Your task to perform on an android device: What's the weather going to be this weekend? Image 0: 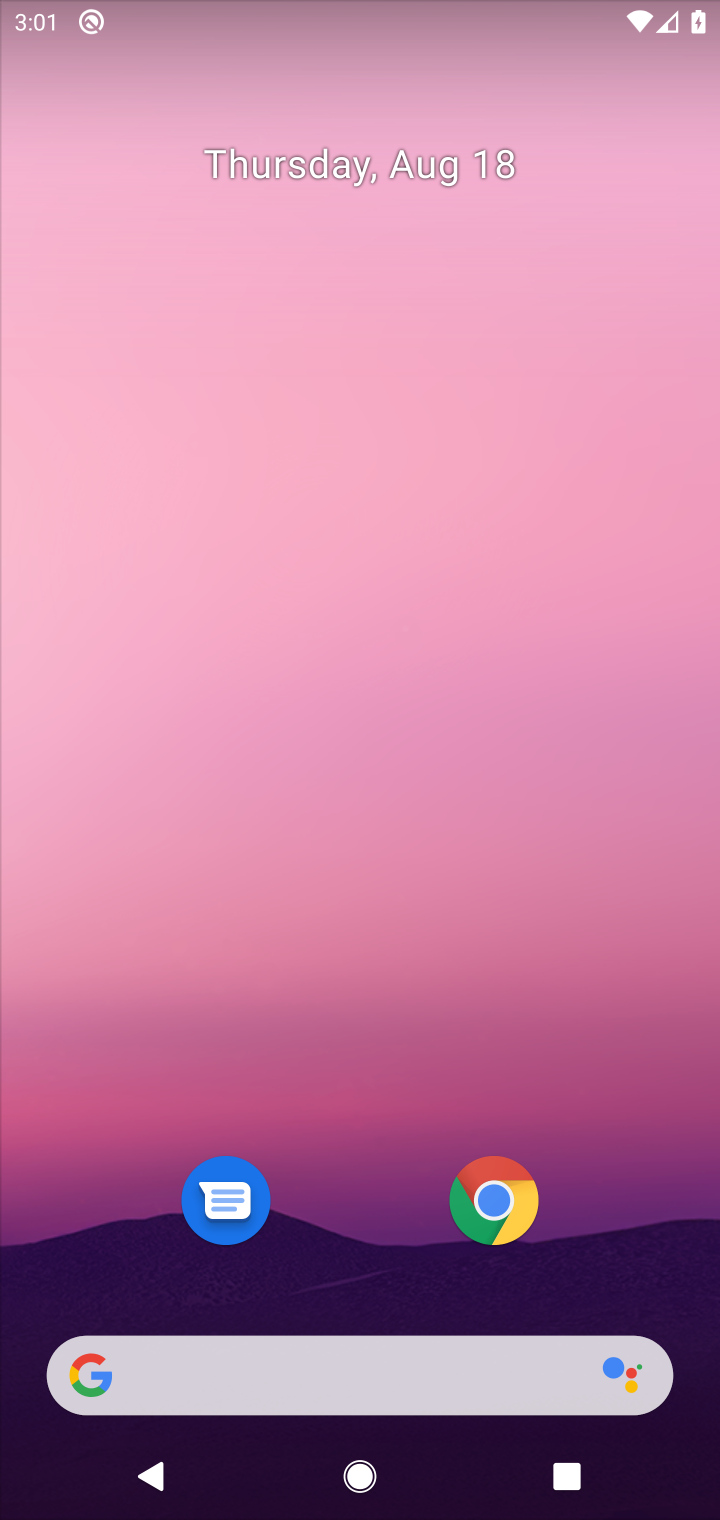
Step 0: drag from (405, 1208) to (533, 126)
Your task to perform on an android device: What's the weather going to be this weekend? Image 1: 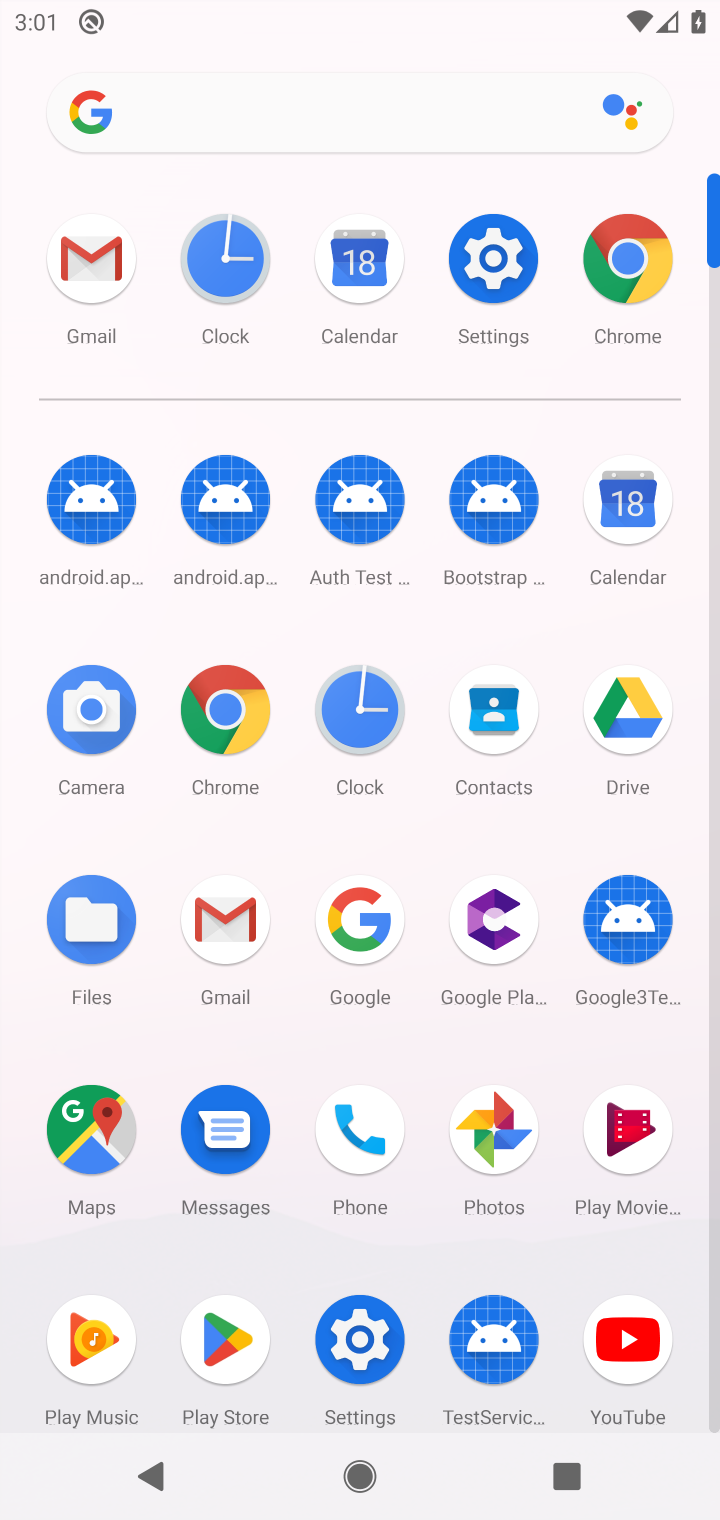
Step 1: click (213, 686)
Your task to perform on an android device: What's the weather going to be this weekend? Image 2: 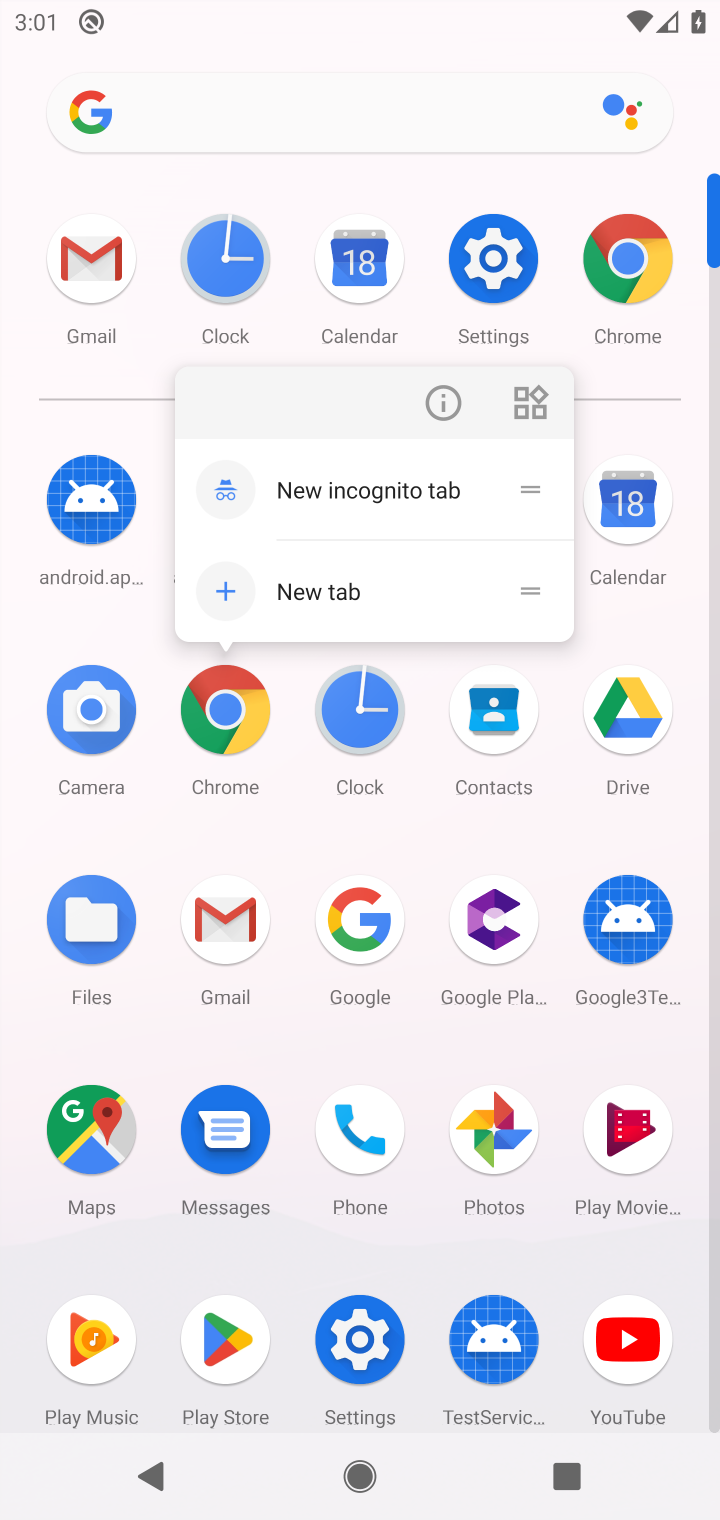
Step 2: click (251, 712)
Your task to perform on an android device: What's the weather going to be this weekend? Image 3: 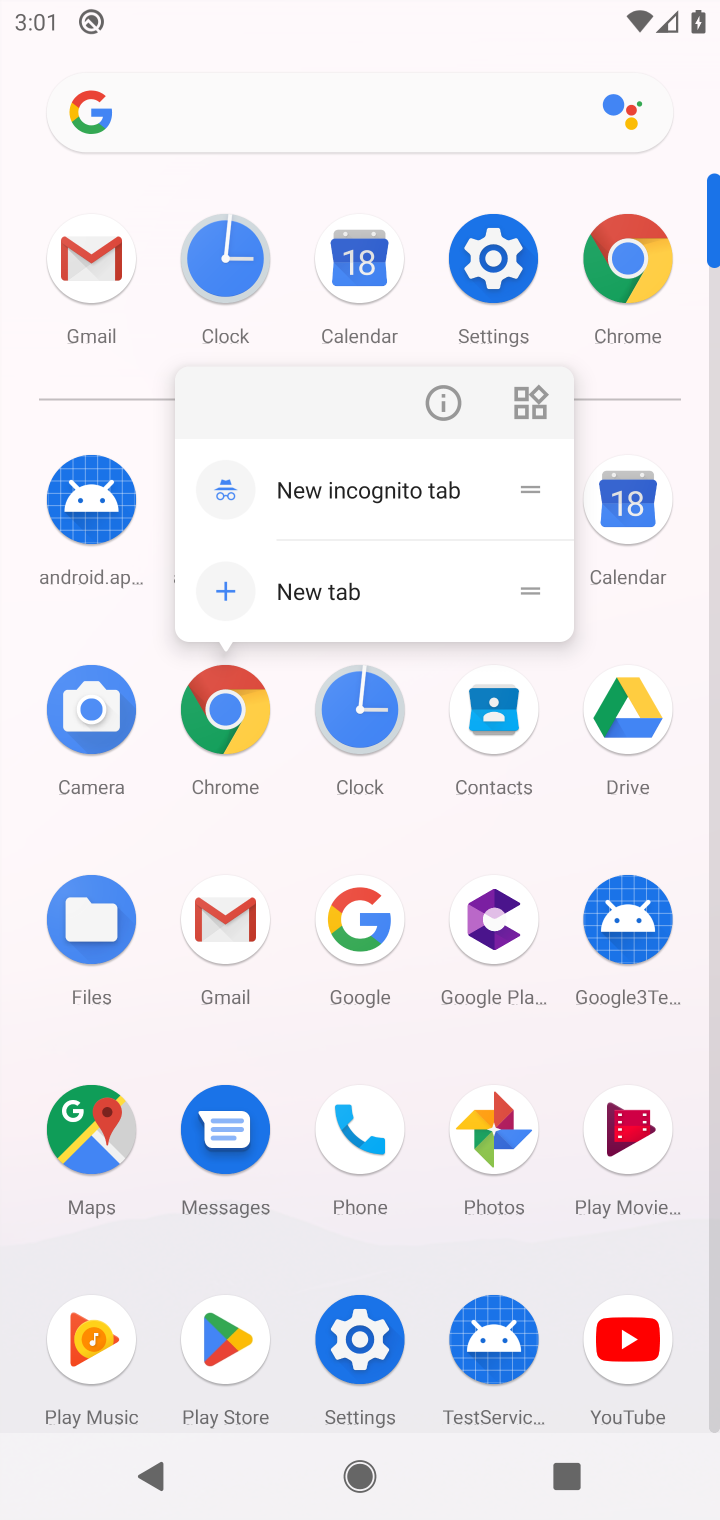
Step 3: click (251, 712)
Your task to perform on an android device: What's the weather going to be this weekend? Image 4: 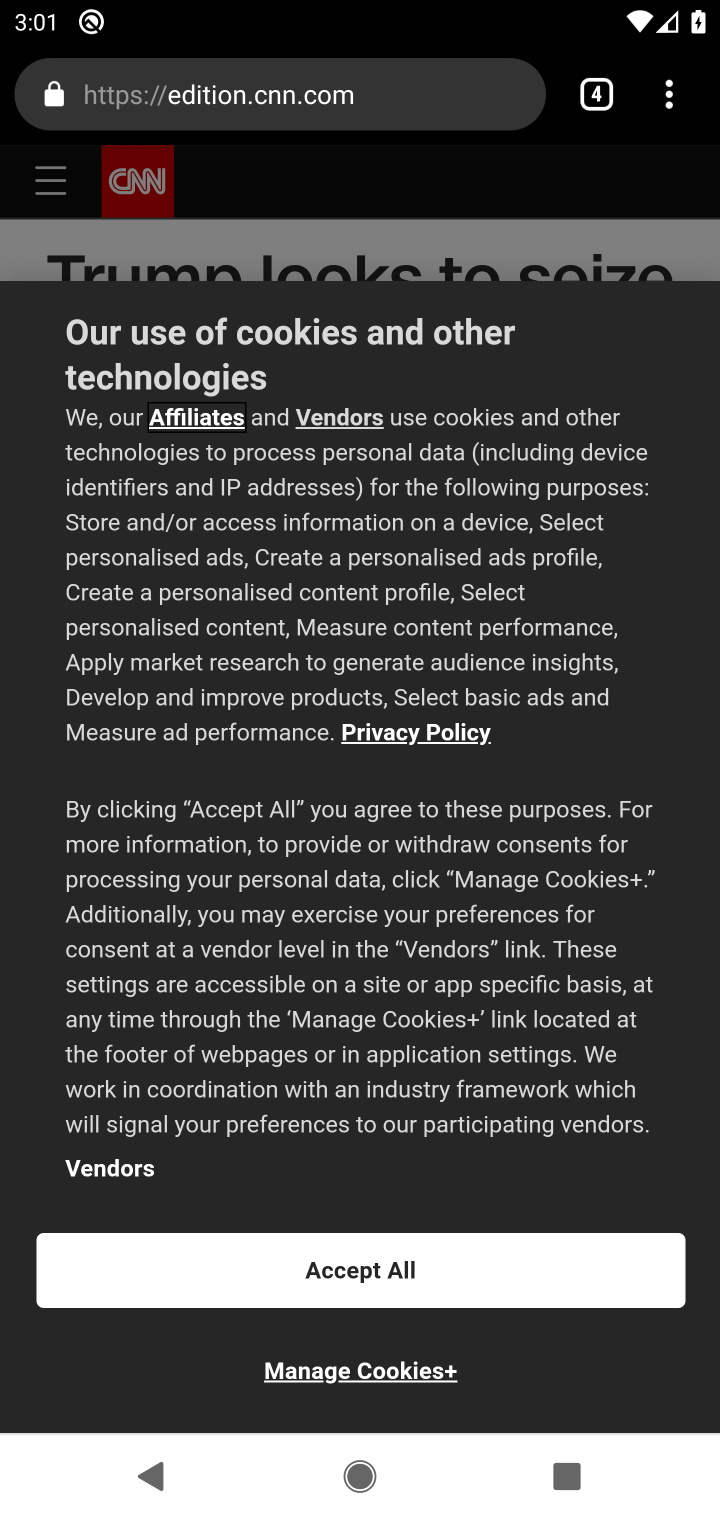
Step 4: click (294, 77)
Your task to perform on an android device: What's the weather going to be this weekend? Image 5: 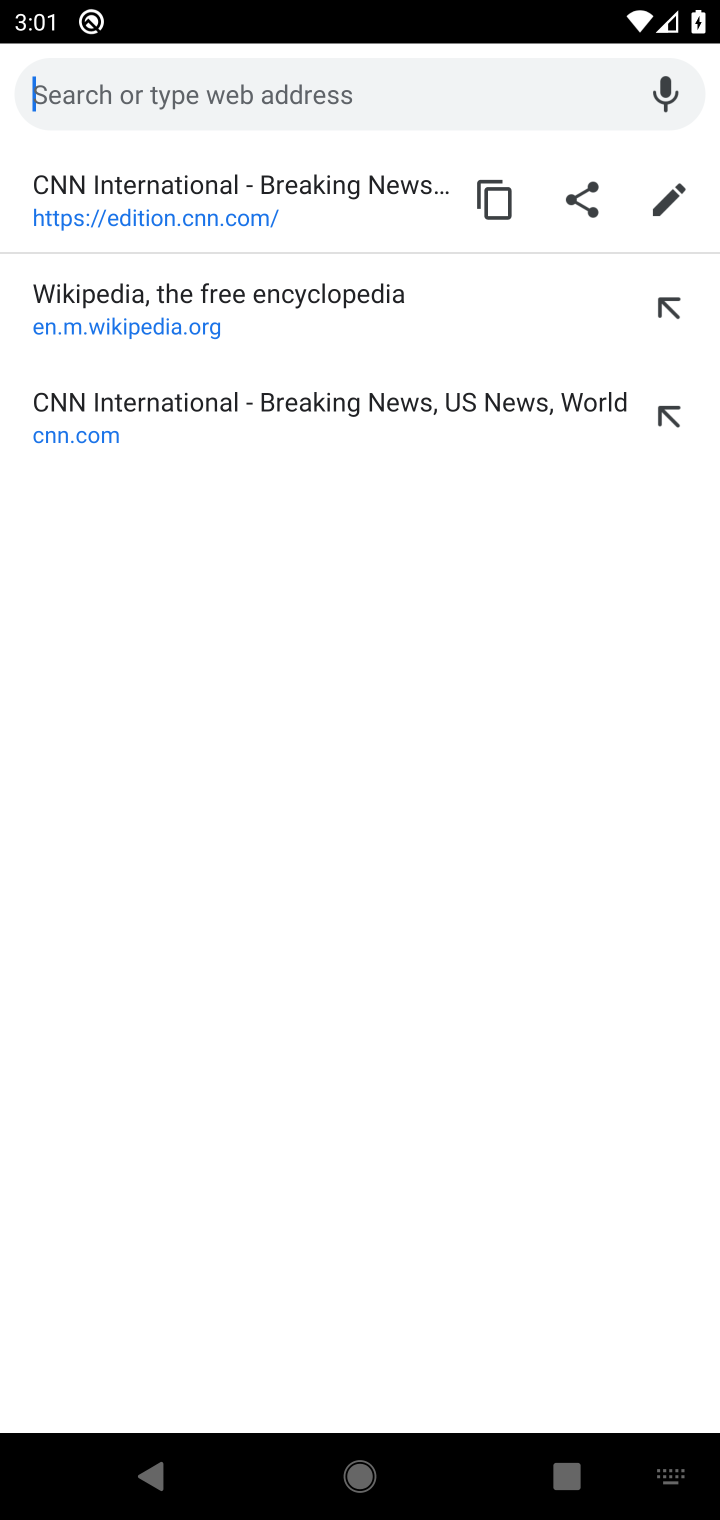
Step 5: type "What's the weather going to be this weekend?"
Your task to perform on an android device: What's the weather going to be this weekend? Image 6: 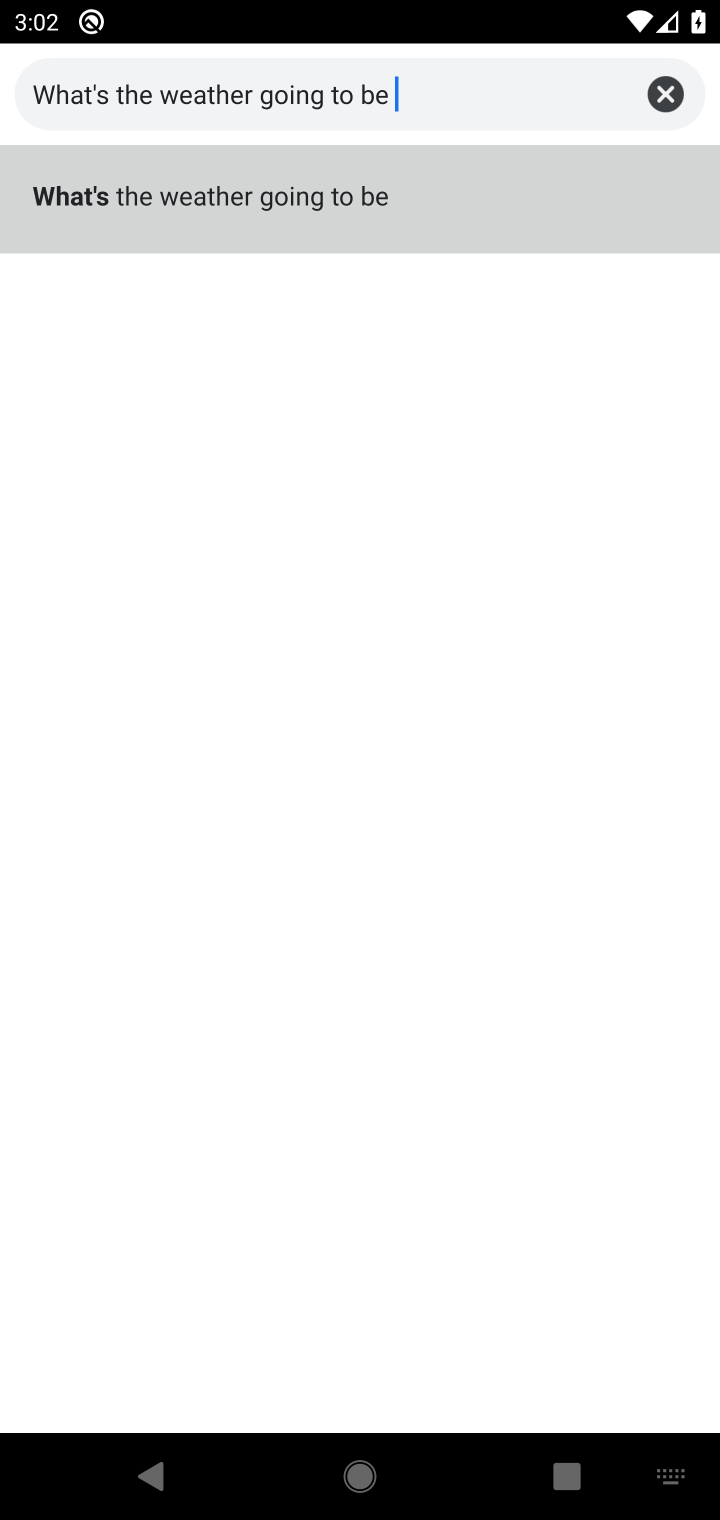
Step 6: click (264, 170)
Your task to perform on an android device: What's the weather going to be this weekend? Image 7: 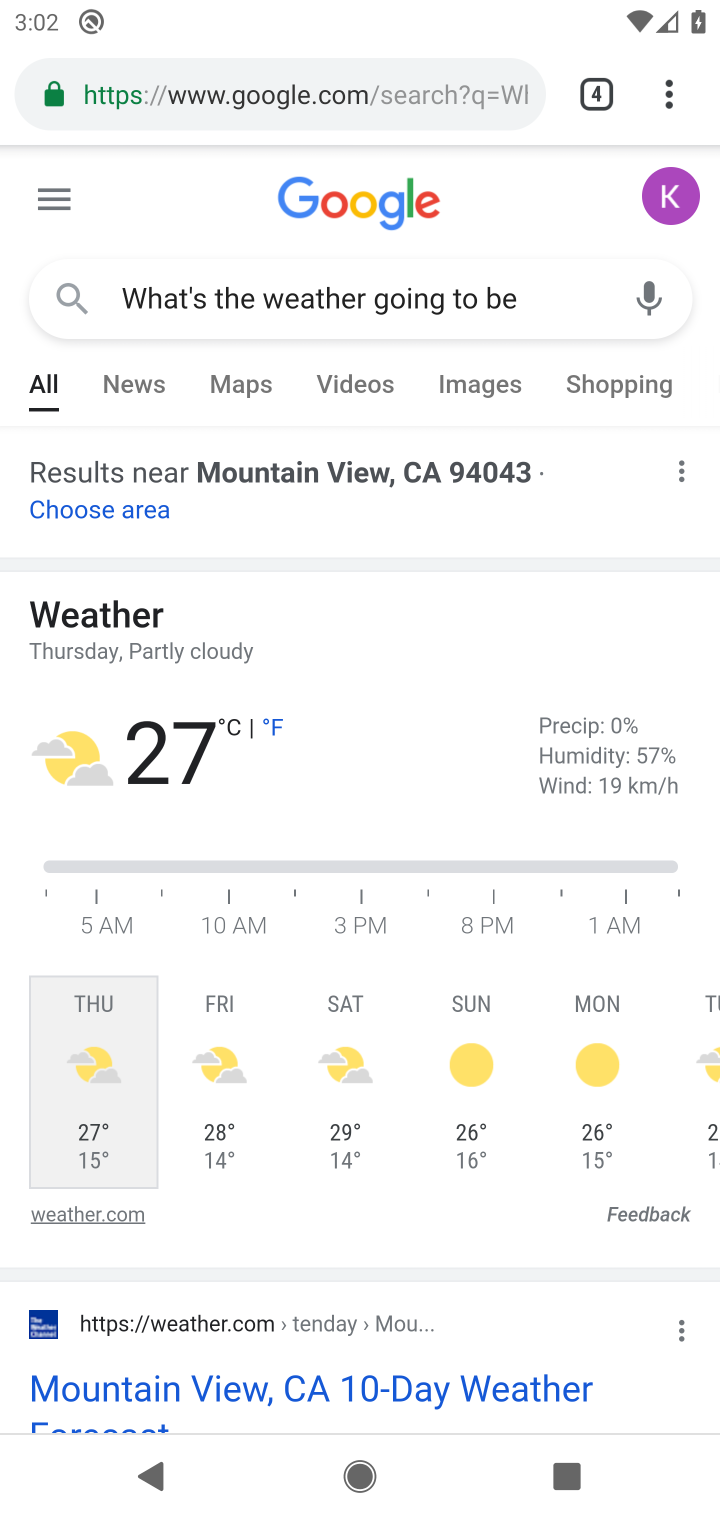
Step 7: task complete